Your task to perform on an android device: create a new album in the google photos Image 0: 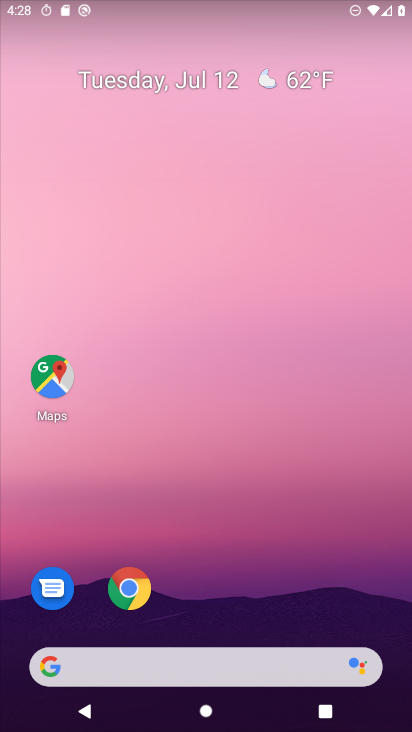
Step 0: drag from (241, 595) to (262, 96)
Your task to perform on an android device: create a new album in the google photos Image 1: 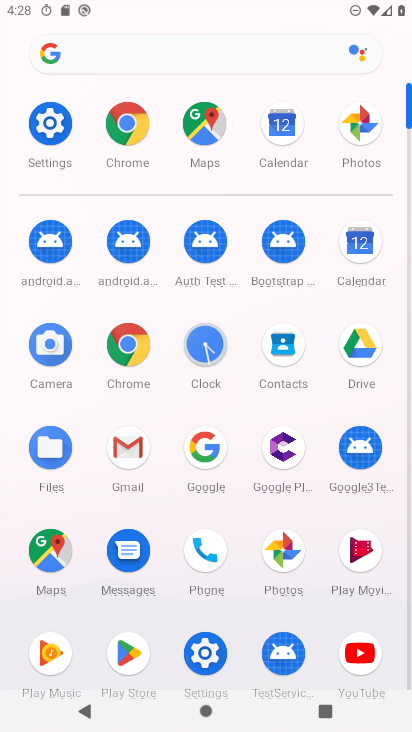
Step 1: click (293, 545)
Your task to perform on an android device: create a new album in the google photos Image 2: 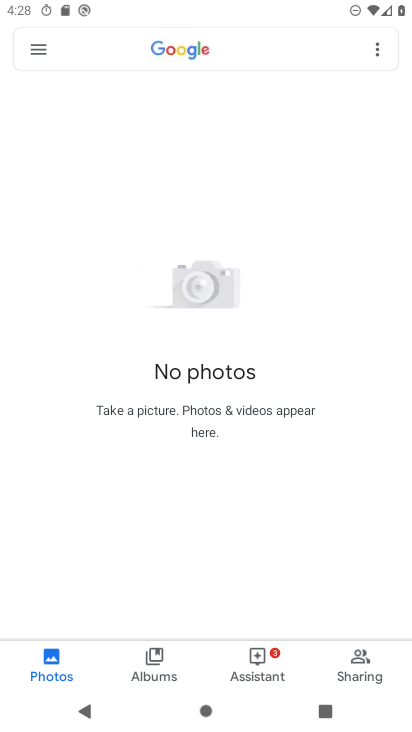
Step 2: click (152, 657)
Your task to perform on an android device: create a new album in the google photos Image 3: 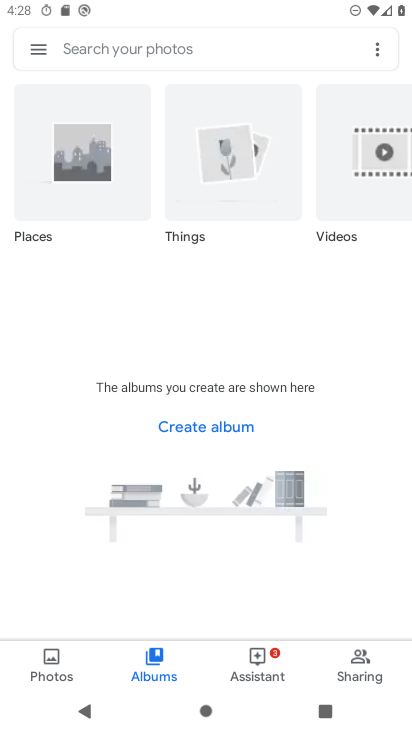
Step 3: task complete